Your task to perform on an android device: open a bookmark in the chrome app Image 0: 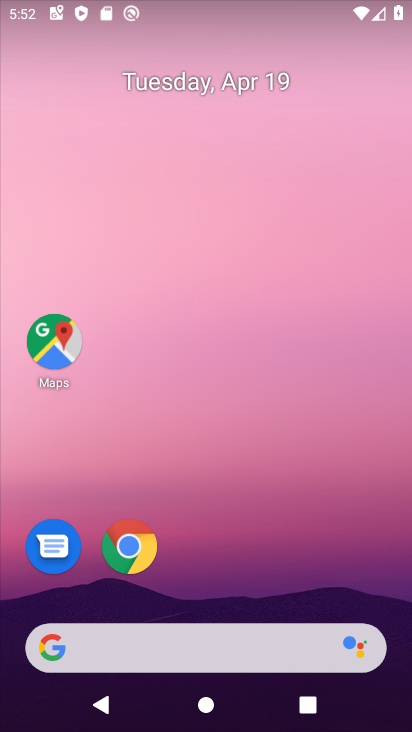
Step 0: drag from (246, 566) to (259, 21)
Your task to perform on an android device: open a bookmark in the chrome app Image 1: 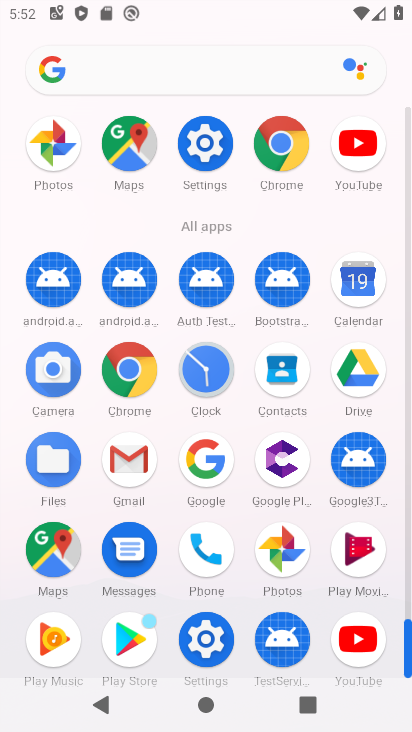
Step 1: click (128, 372)
Your task to perform on an android device: open a bookmark in the chrome app Image 2: 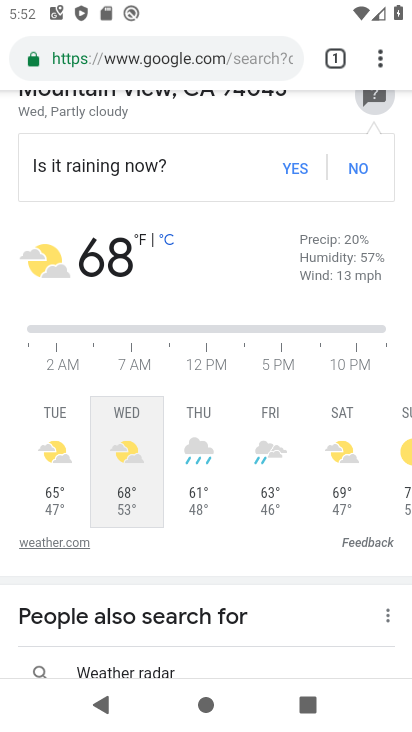
Step 2: task complete